Your task to perform on an android device: See recent photos Image 0: 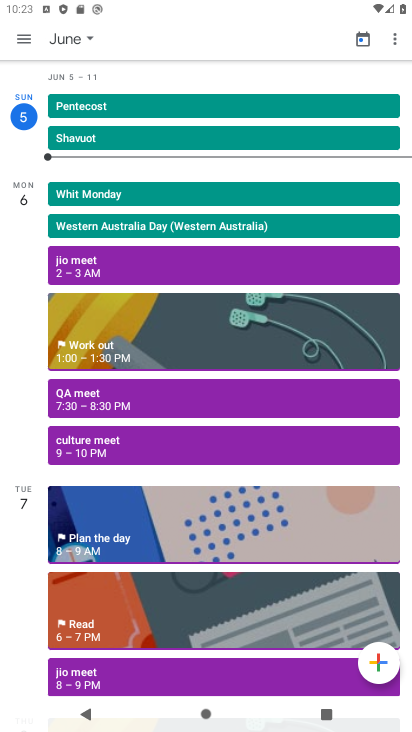
Step 0: task complete